Your task to perform on an android device: Open wifi settings Image 0: 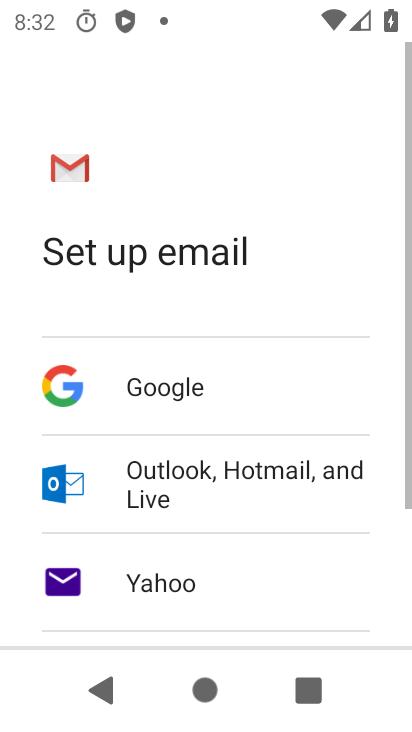
Step 0: press home button
Your task to perform on an android device: Open wifi settings Image 1: 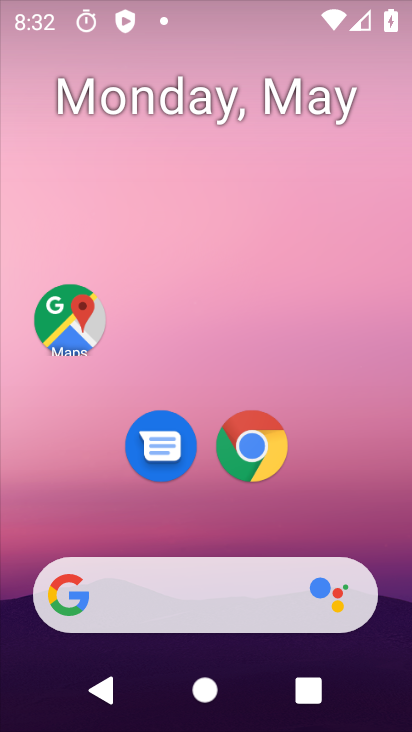
Step 1: drag from (342, 448) to (209, 10)
Your task to perform on an android device: Open wifi settings Image 2: 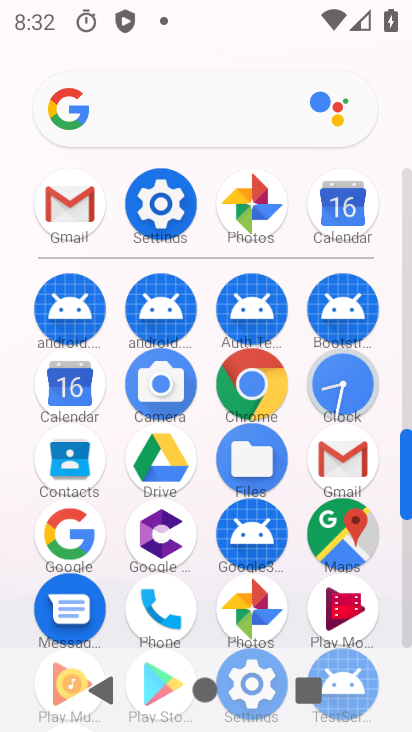
Step 2: click (169, 201)
Your task to perform on an android device: Open wifi settings Image 3: 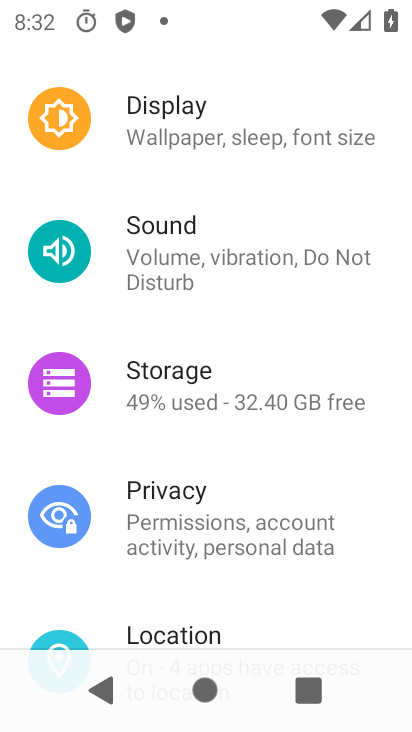
Step 3: drag from (404, 146) to (343, 640)
Your task to perform on an android device: Open wifi settings Image 4: 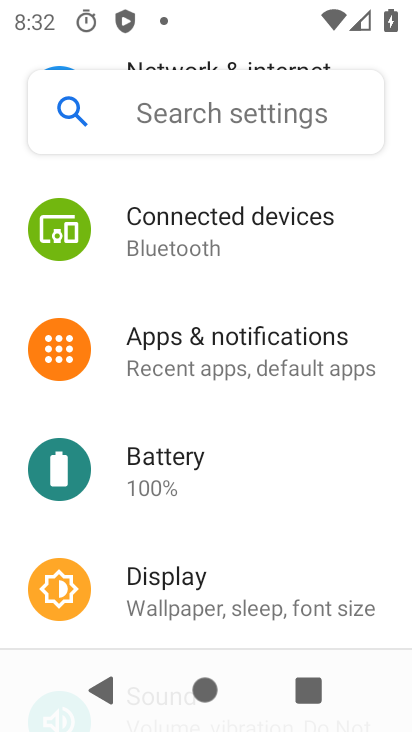
Step 4: drag from (249, 243) to (265, 500)
Your task to perform on an android device: Open wifi settings Image 5: 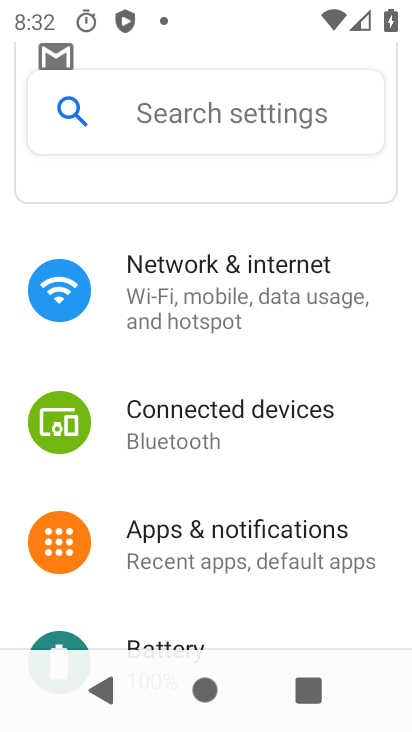
Step 5: click (183, 270)
Your task to perform on an android device: Open wifi settings Image 6: 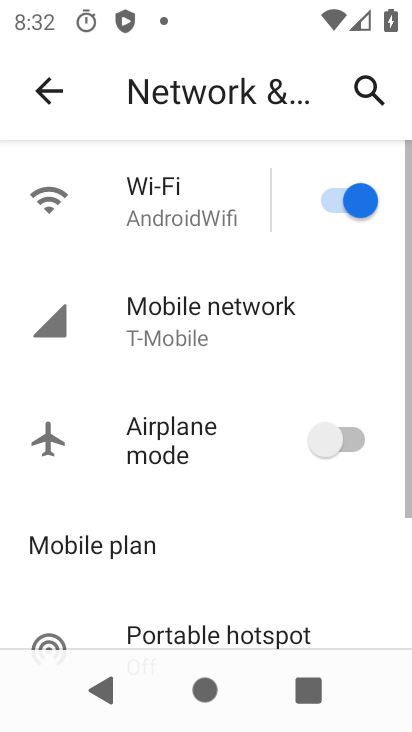
Step 6: click (164, 207)
Your task to perform on an android device: Open wifi settings Image 7: 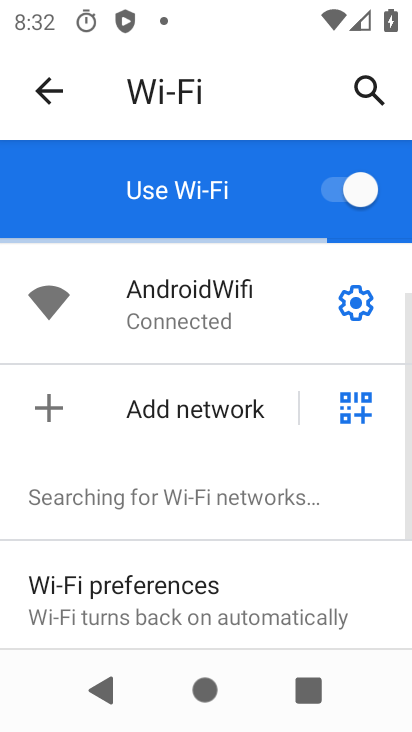
Step 7: task complete